Your task to perform on an android device: add a contact Image 0: 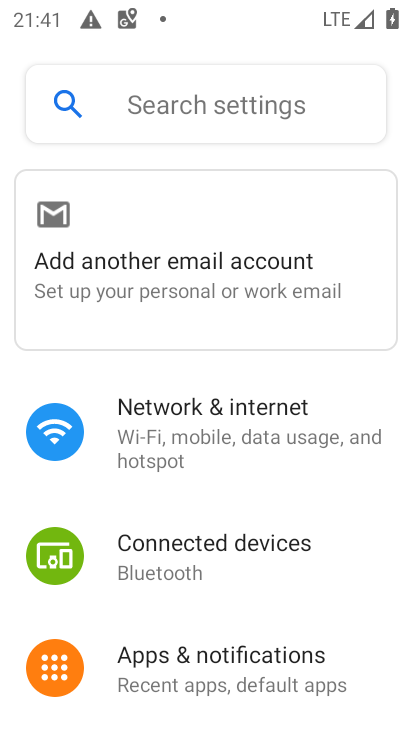
Step 0: press home button
Your task to perform on an android device: add a contact Image 1: 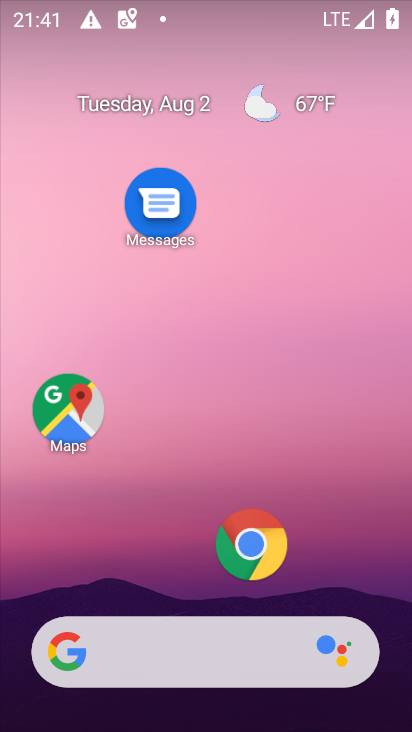
Step 1: drag from (161, 580) to (161, 109)
Your task to perform on an android device: add a contact Image 2: 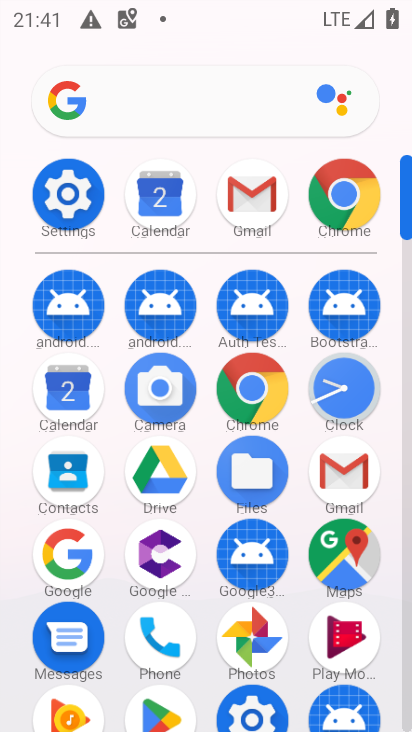
Step 2: click (72, 500)
Your task to perform on an android device: add a contact Image 3: 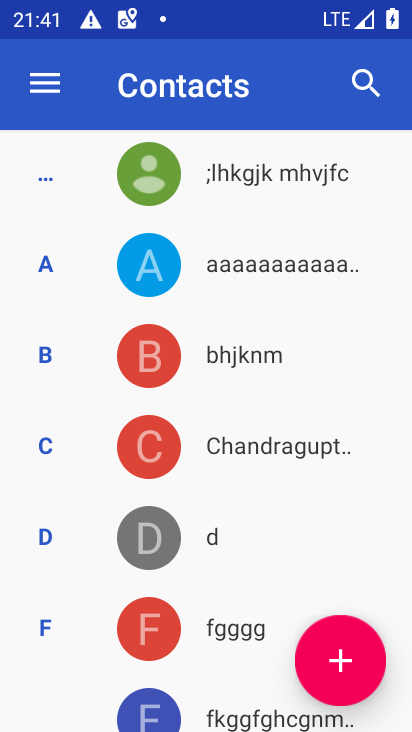
Step 3: click (338, 684)
Your task to perform on an android device: add a contact Image 4: 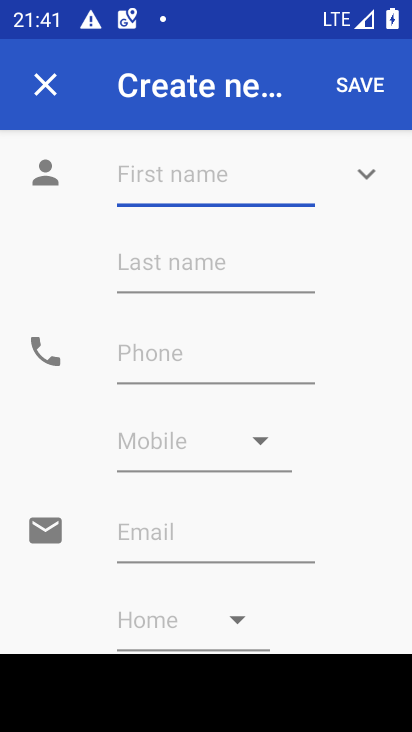
Step 4: type "dgfdgdfg"
Your task to perform on an android device: add a contact Image 5: 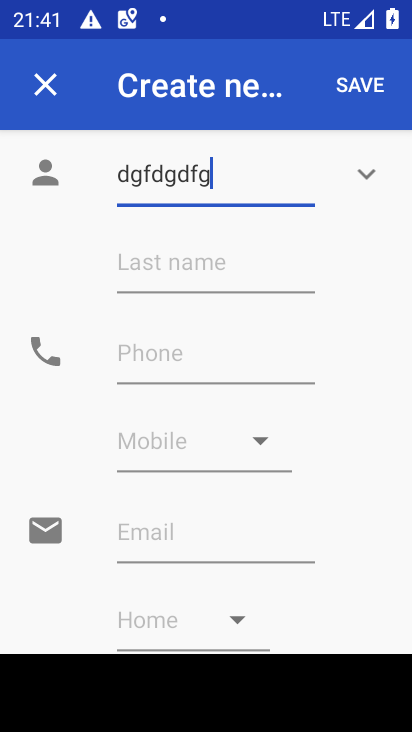
Step 5: type ""
Your task to perform on an android device: add a contact Image 6: 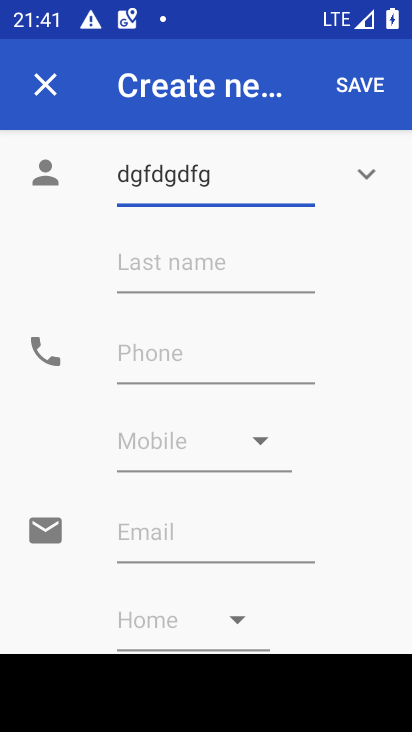
Step 6: click (167, 361)
Your task to perform on an android device: add a contact Image 7: 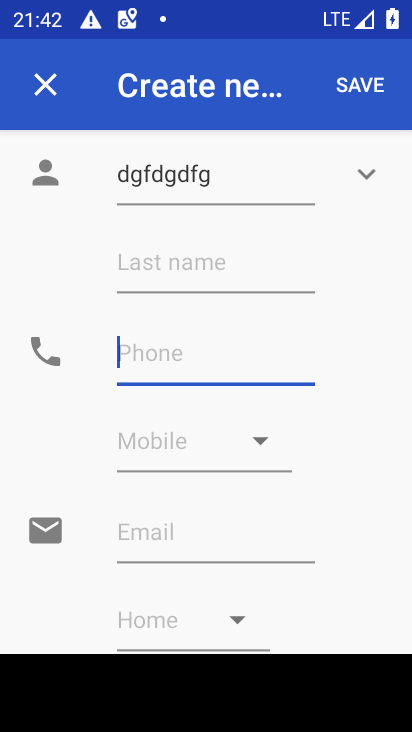
Step 7: type "8657577454"
Your task to perform on an android device: add a contact Image 8: 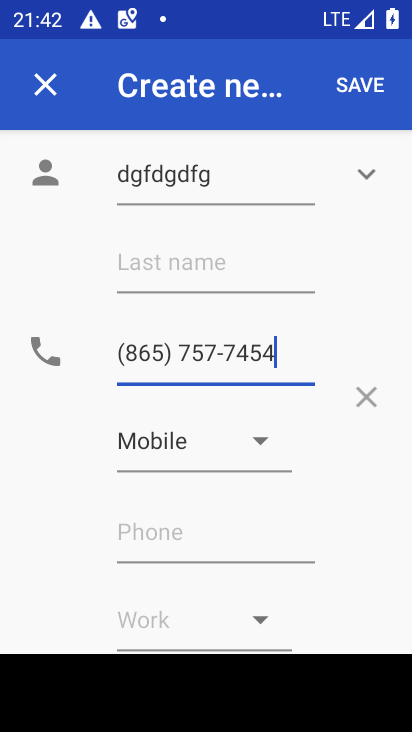
Step 8: type ""
Your task to perform on an android device: add a contact Image 9: 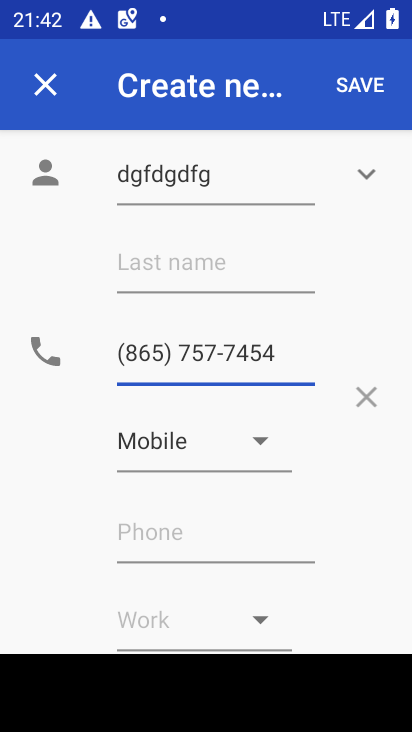
Step 9: click (355, 89)
Your task to perform on an android device: add a contact Image 10: 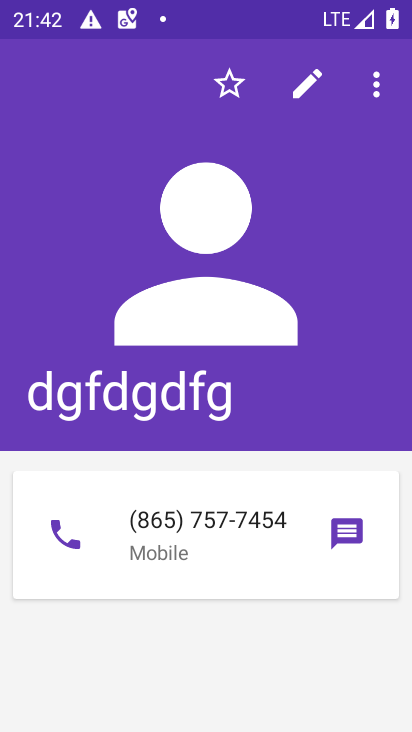
Step 10: task complete